Your task to perform on an android device: check battery use Image 0: 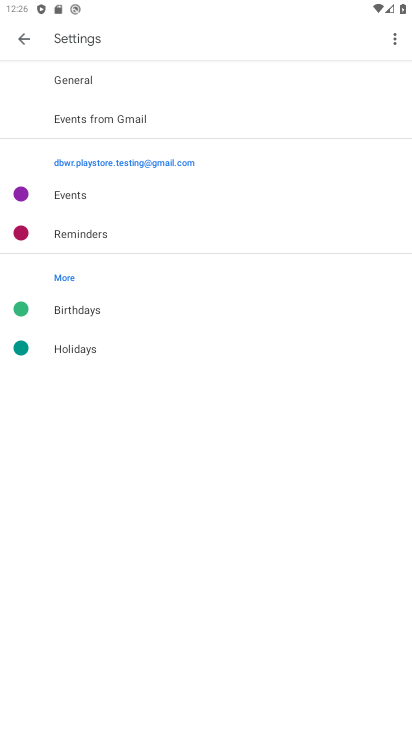
Step 0: press home button
Your task to perform on an android device: check battery use Image 1: 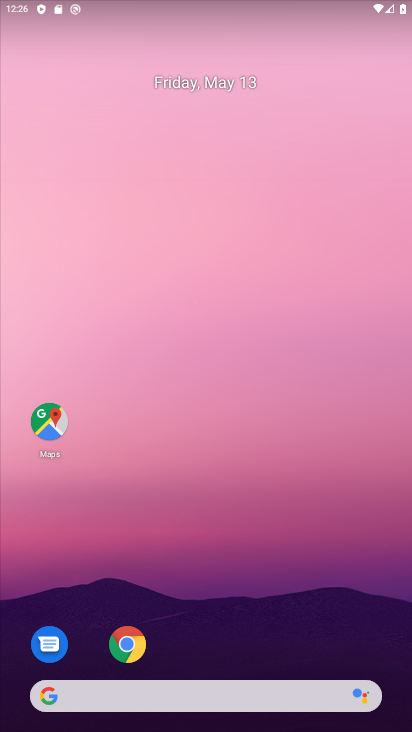
Step 1: drag from (248, 550) to (271, 107)
Your task to perform on an android device: check battery use Image 2: 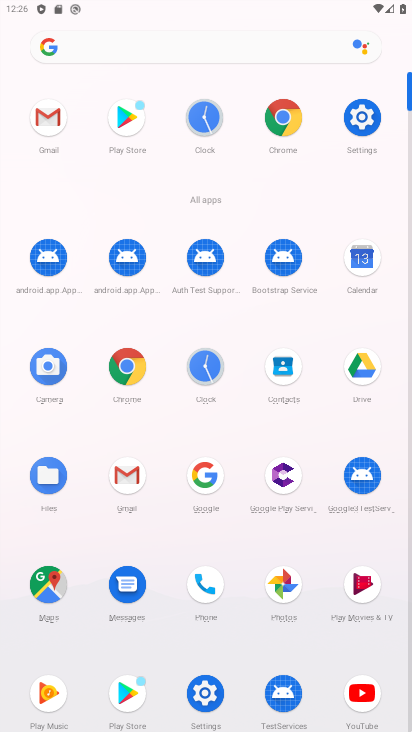
Step 2: click (360, 103)
Your task to perform on an android device: check battery use Image 3: 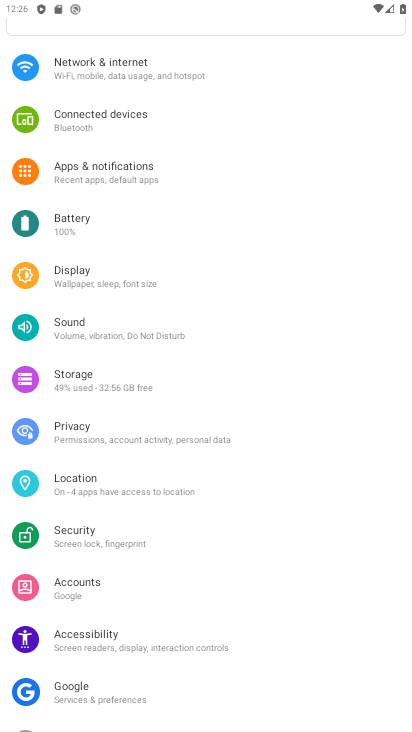
Step 3: click (58, 233)
Your task to perform on an android device: check battery use Image 4: 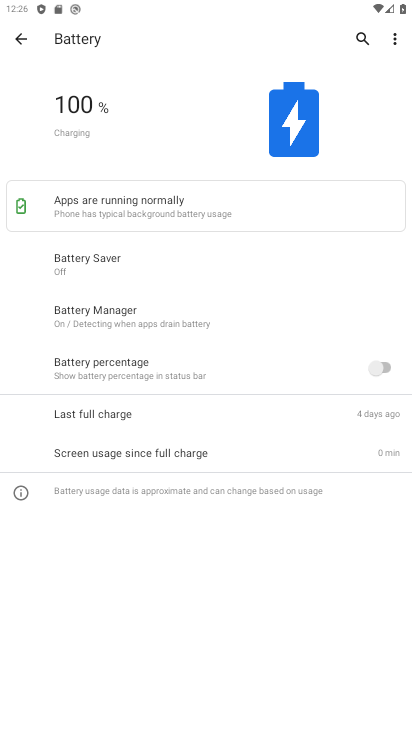
Step 4: click (396, 37)
Your task to perform on an android device: check battery use Image 5: 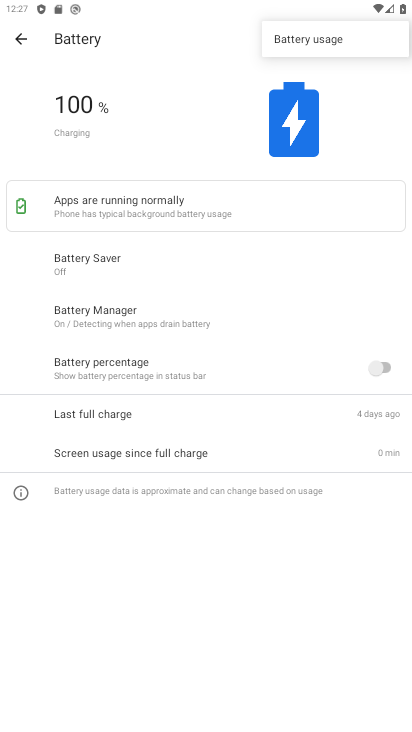
Step 5: click (346, 36)
Your task to perform on an android device: check battery use Image 6: 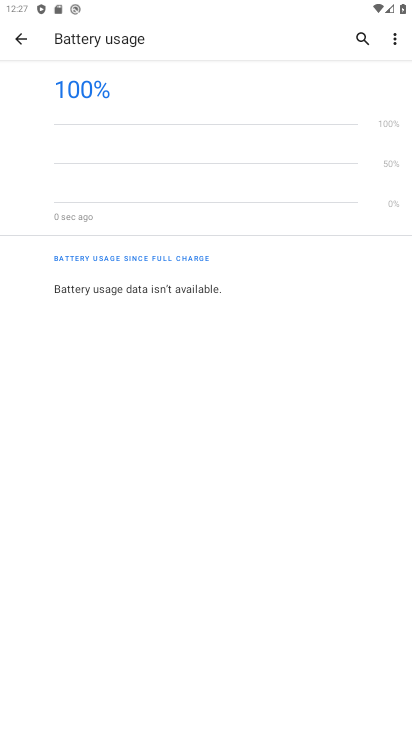
Step 6: task complete